Your task to perform on an android device: open wifi settings Image 0: 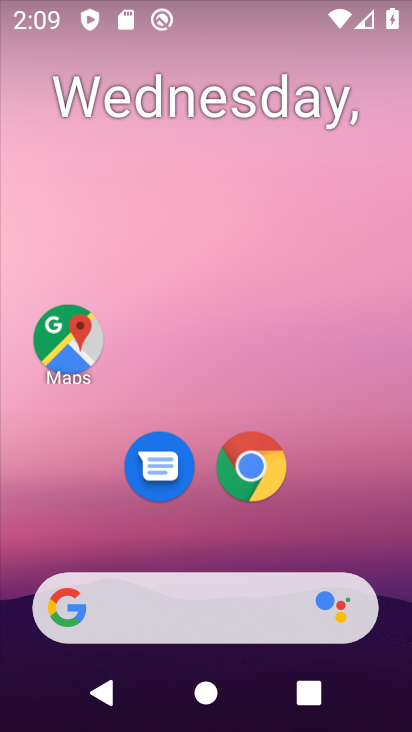
Step 0: drag from (395, 670) to (246, 31)
Your task to perform on an android device: open wifi settings Image 1: 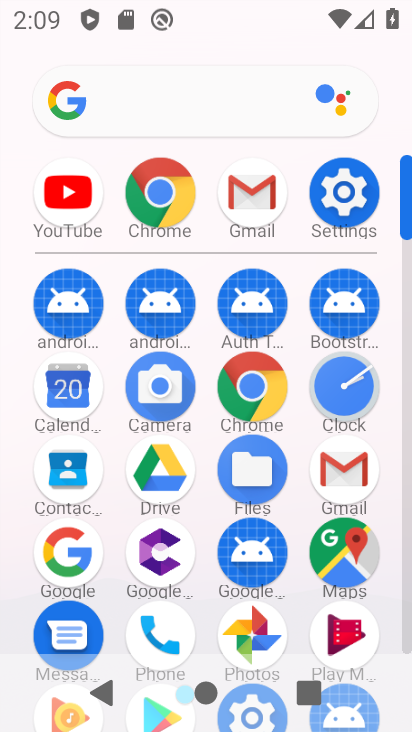
Step 1: click (341, 186)
Your task to perform on an android device: open wifi settings Image 2: 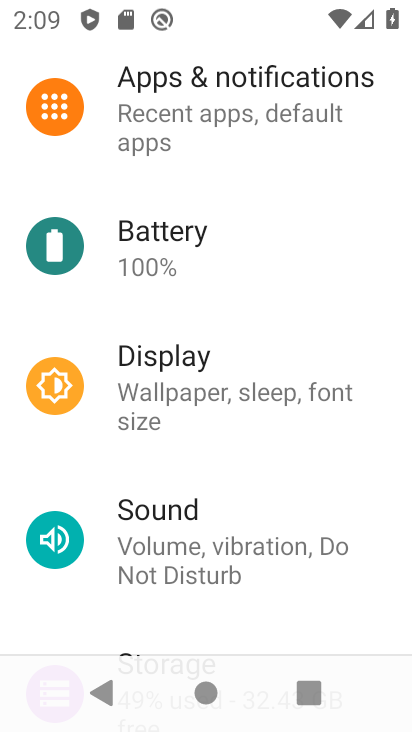
Step 2: drag from (211, 86) to (257, 428)
Your task to perform on an android device: open wifi settings Image 3: 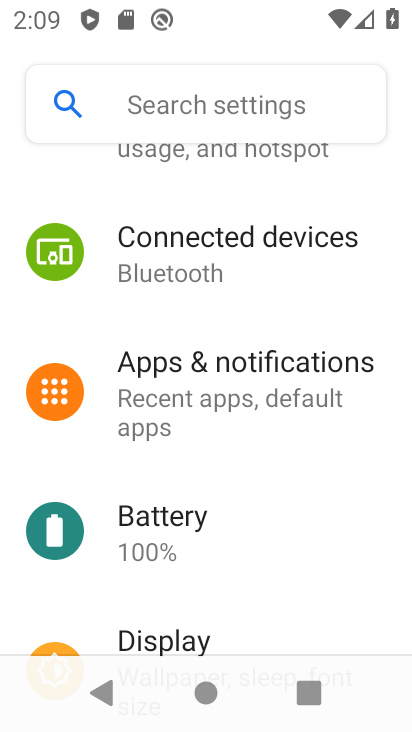
Step 3: drag from (191, 175) to (289, 478)
Your task to perform on an android device: open wifi settings Image 4: 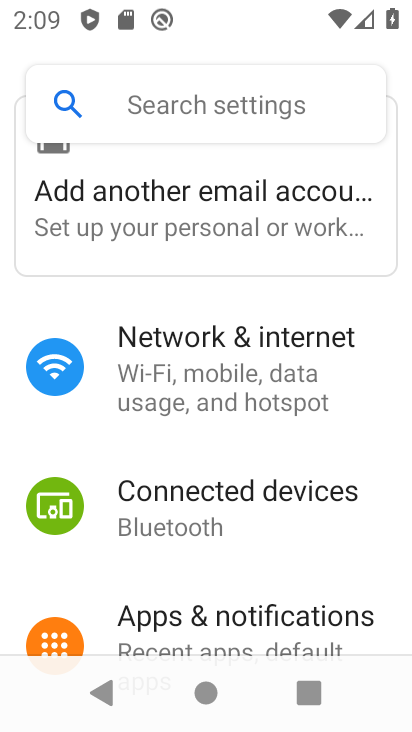
Step 4: drag from (368, 363) to (385, 543)
Your task to perform on an android device: open wifi settings Image 5: 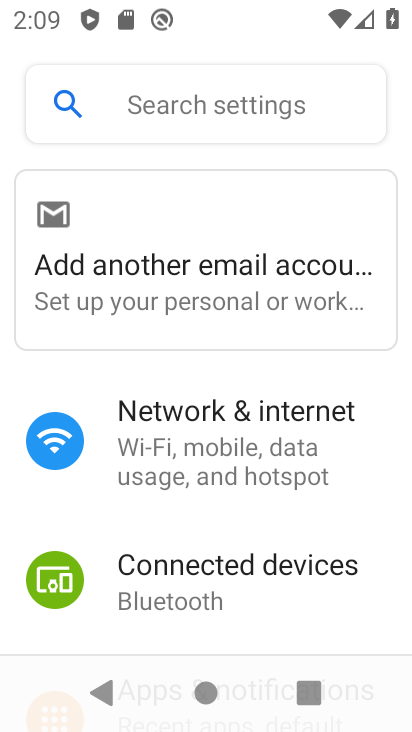
Step 5: click (296, 435)
Your task to perform on an android device: open wifi settings Image 6: 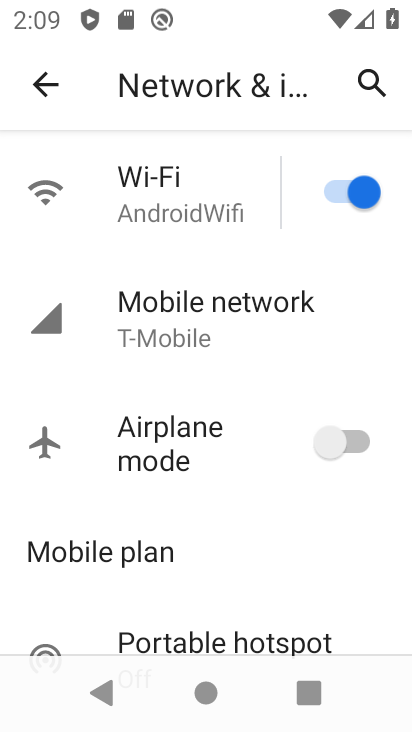
Step 6: click (149, 168)
Your task to perform on an android device: open wifi settings Image 7: 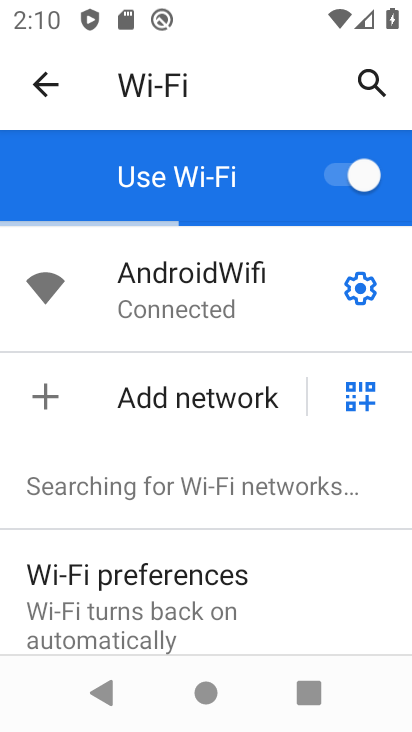
Step 7: task complete